Your task to perform on an android device: Open eBay Image 0: 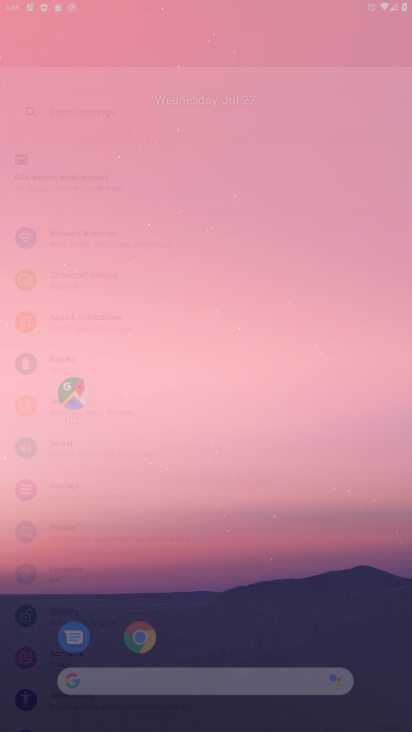
Step 0: click (283, 136)
Your task to perform on an android device: Open eBay Image 1: 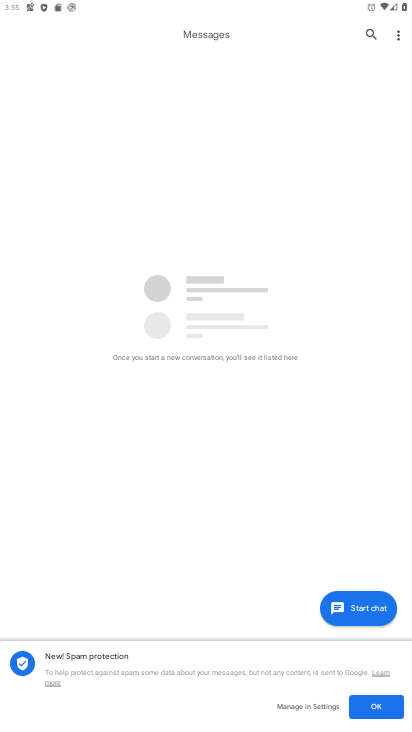
Step 1: press home button
Your task to perform on an android device: Open eBay Image 2: 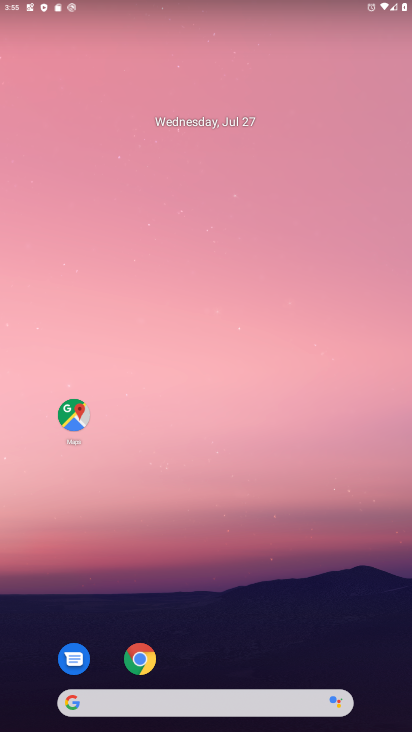
Step 2: click (134, 663)
Your task to perform on an android device: Open eBay Image 3: 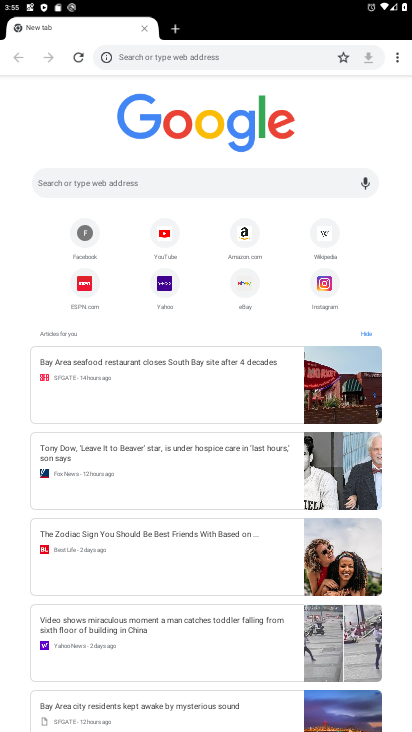
Step 3: click (243, 297)
Your task to perform on an android device: Open eBay Image 4: 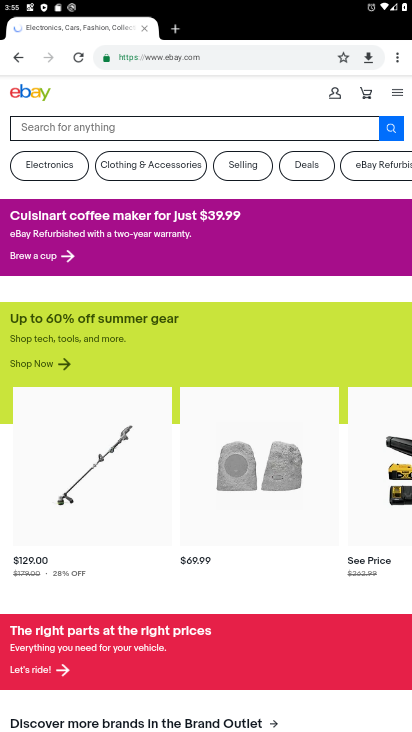
Step 4: task complete